Your task to perform on an android device: turn notification dots off Image 0: 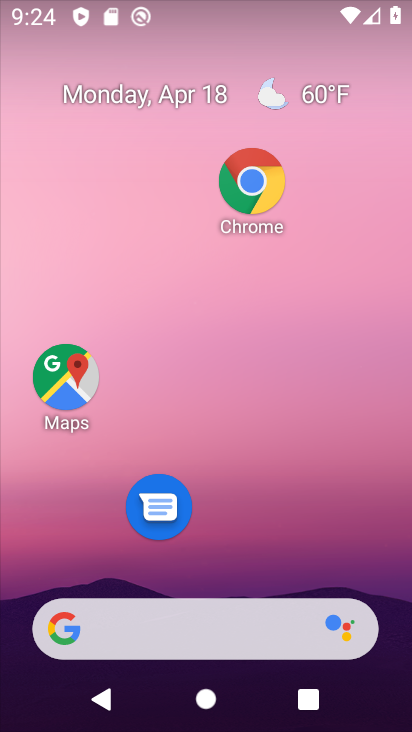
Step 0: drag from (204, 604) to (170, 232)
Your task to perform on an android device: turn notification dots off Image 1: 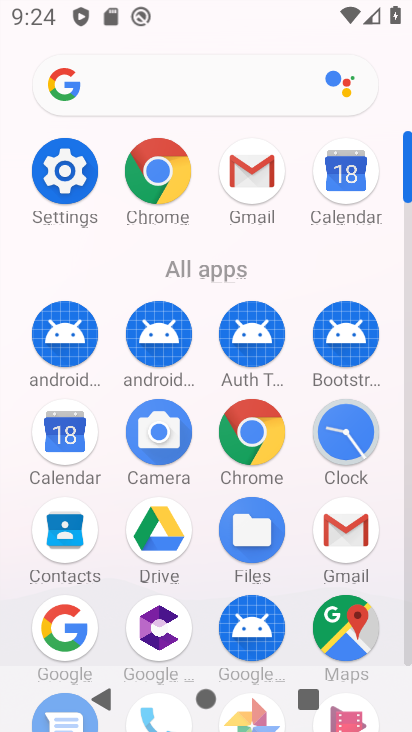
Step 1: click (66, 198)
Your task to perform on an android device: turn notification dots off Image 2: 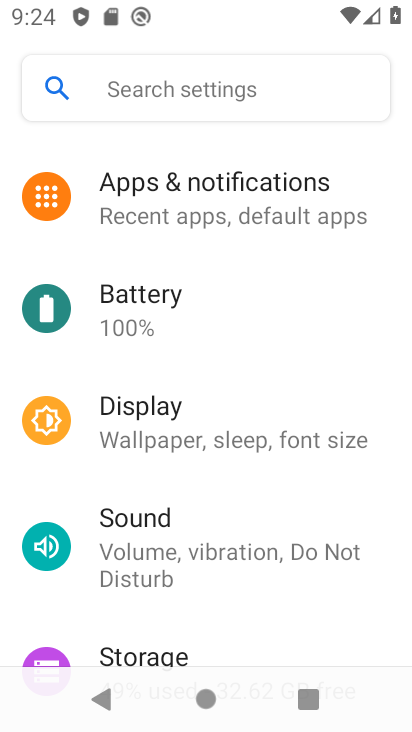
Step 2: click (119, 191)
Your task to perform on an android device: turn notification dots off Image 3: 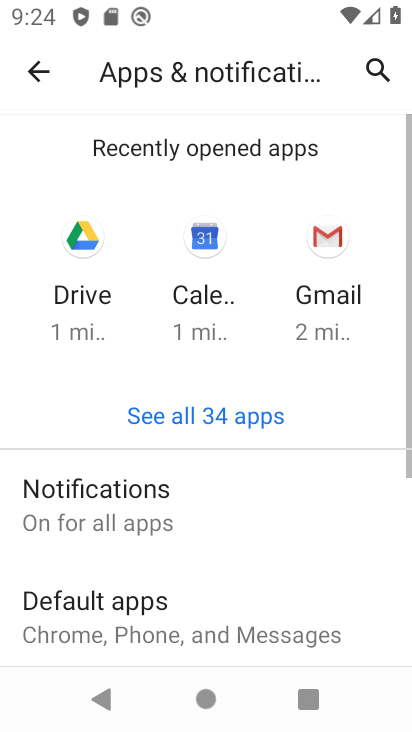
Step 3: drag from (136, 491) to (67, 113)
Your task to perform on an android device: turn notification dots off Image 4: 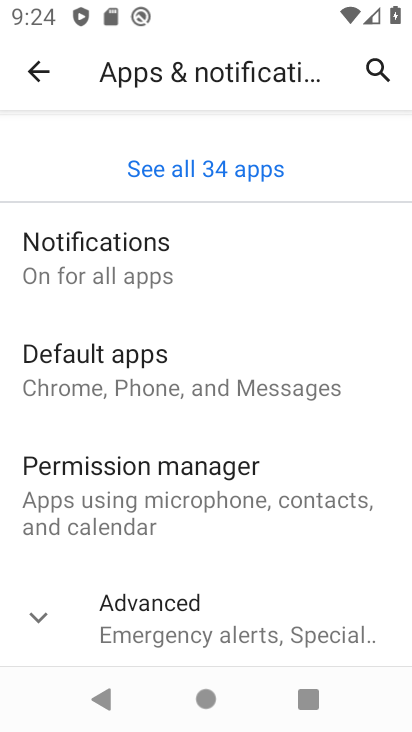
Step 4: click (176, 605)
Your task to perform on an android device: turn notification dots off Image 5: 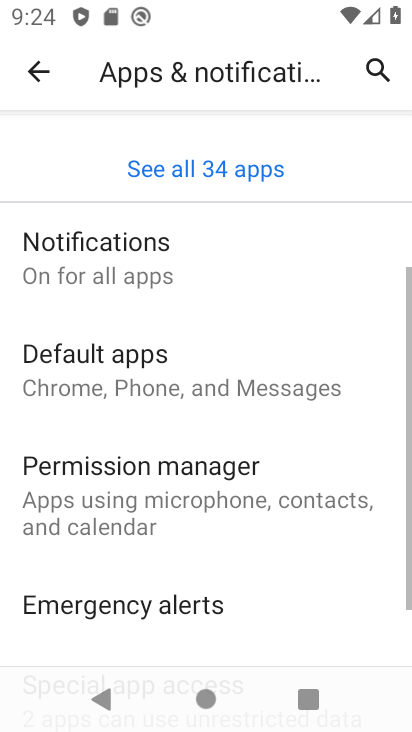
Step 5: drag from (267, 600) to (215, 180)
Your task to perform on an android device: turn notification dots off Image 6: 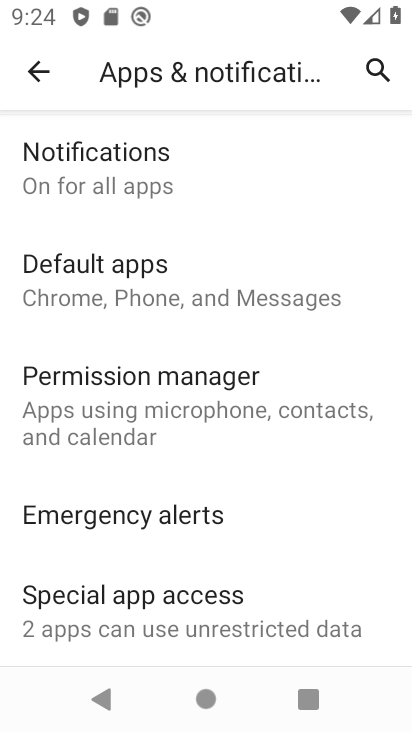
Step 6: click (117, 148)
Your task to perform on an android device: turn notification dots off Image 7: 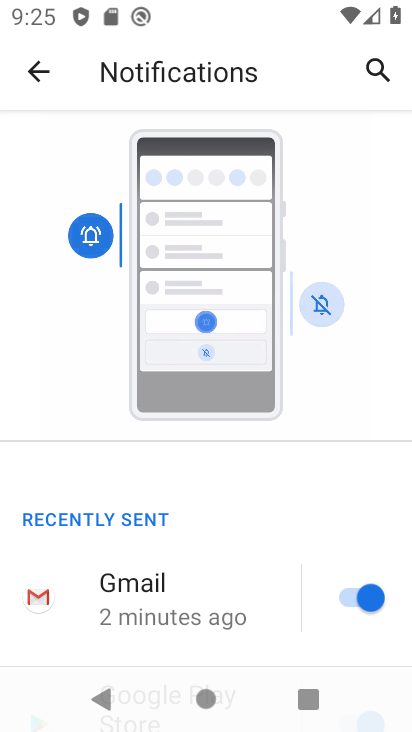
Step 7: drag from (197, 562) to (210, 167)
Your task to perform on an android device: turn notification dots off Image 8: 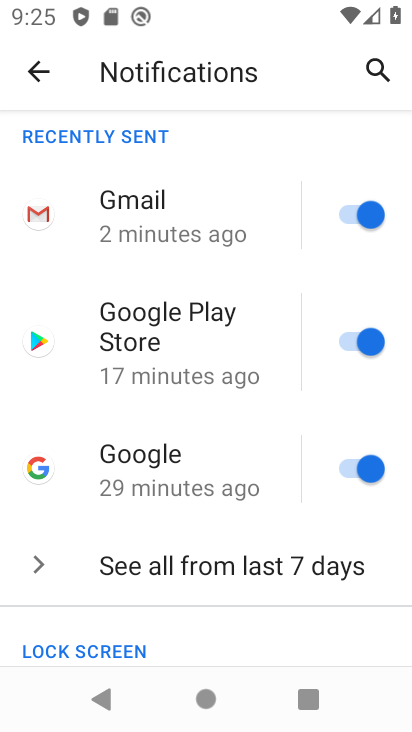
Step 8: drag from (233, 608) to (126, 6)
Your task to perform on an android device: turn notification dots off Image 9: 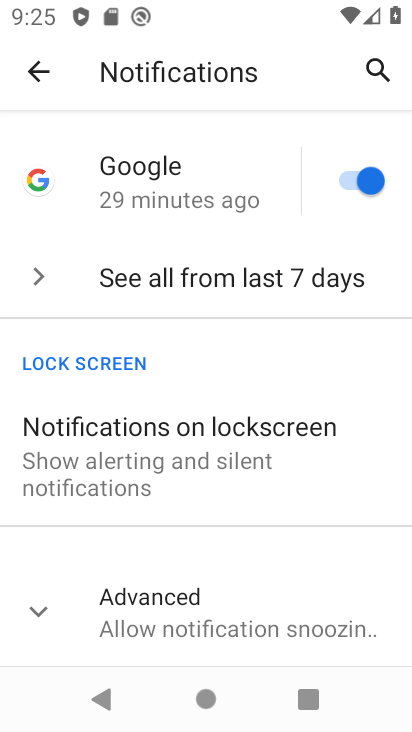
Step 9: drag from (210, 551) to (164, 179)
Your task to perform on an android device: turn notification dots off Image 10: 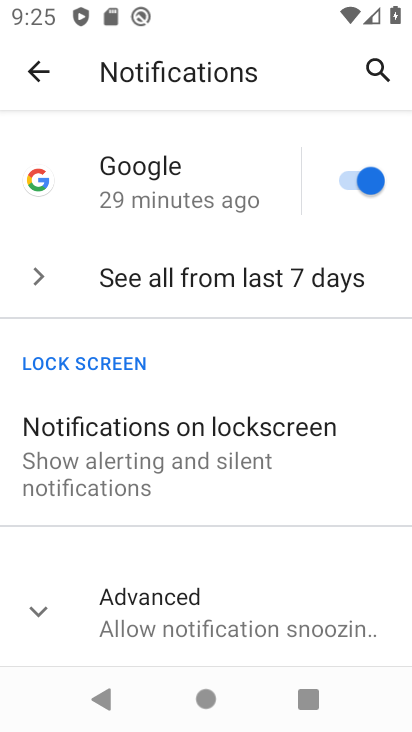
Step 10: click (170, 602)
Your task to perform on an android device: turn notification dots off Image 11: 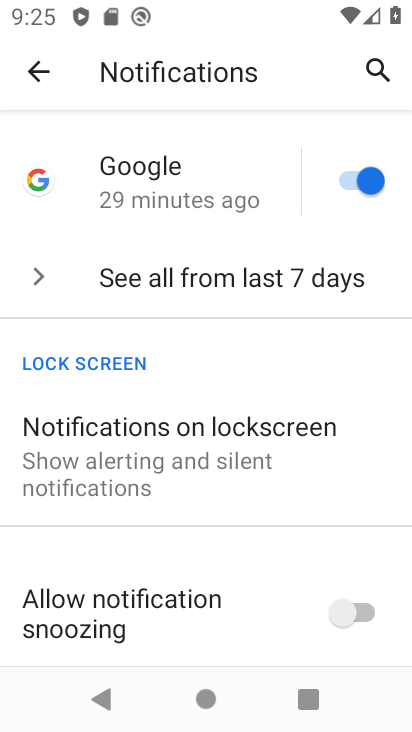
Step 11: drag from (169, 604) to (118, 228)
Your task to perform on an android device: turn notification dots off Image 12: 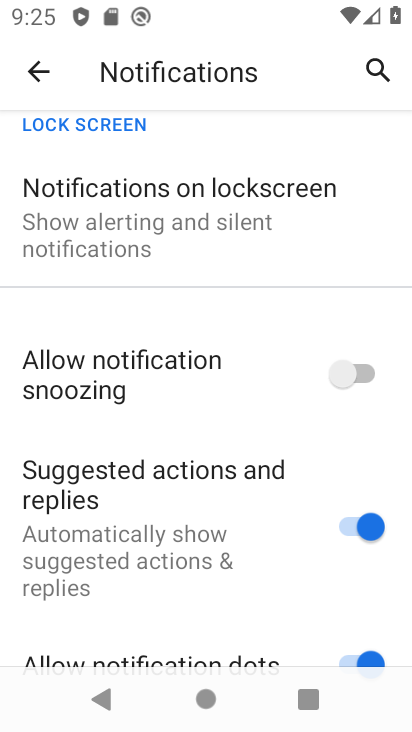
Step 12: drag from (212, 522) to (157, 250)
Your task to perform on an android device: turn notification dots off Image 13: 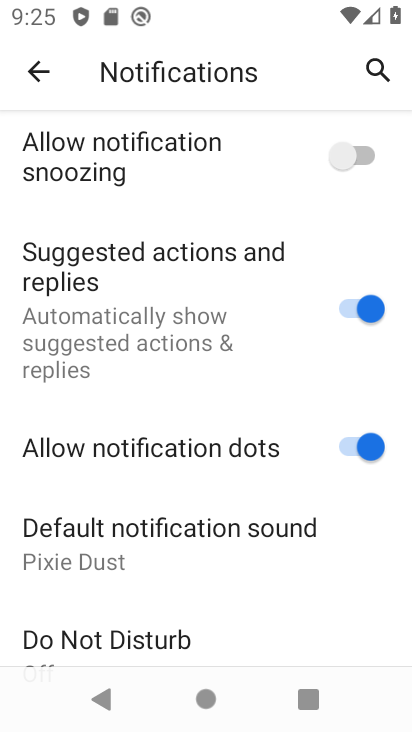
Step 13: click (369, 441)
Your task to perform on an android device: turn notification dots off Image 14: 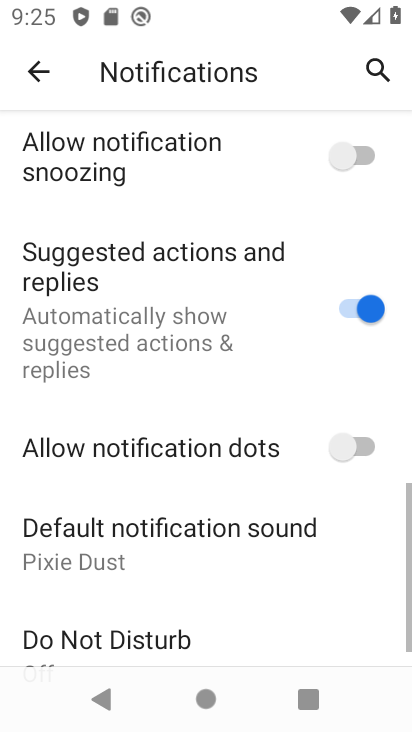
Step 14: task complete